Your task to perform on an android device: open app "Chime – Mobile Banking" (install if not already installed) and enter user name: "bullfrog@inbox.com" and password: "breaker" Image 0: 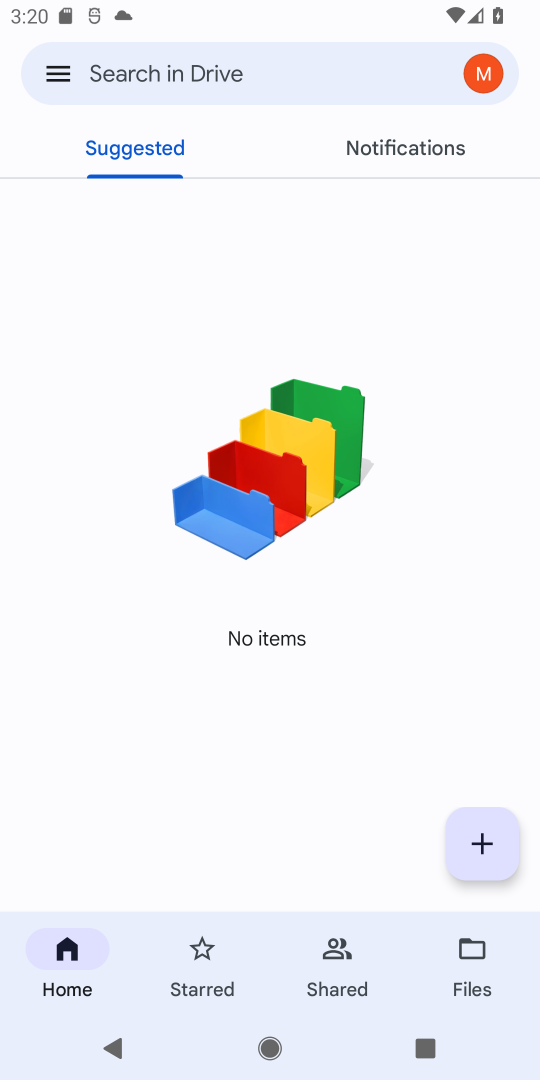
Step 0: press home button
Your task to perform on an android device: open app "Chime – Mobile Banking" (install if not already installed) and enter user name: "bullfrog@inbox.com" and password: "breaker" Image 1: 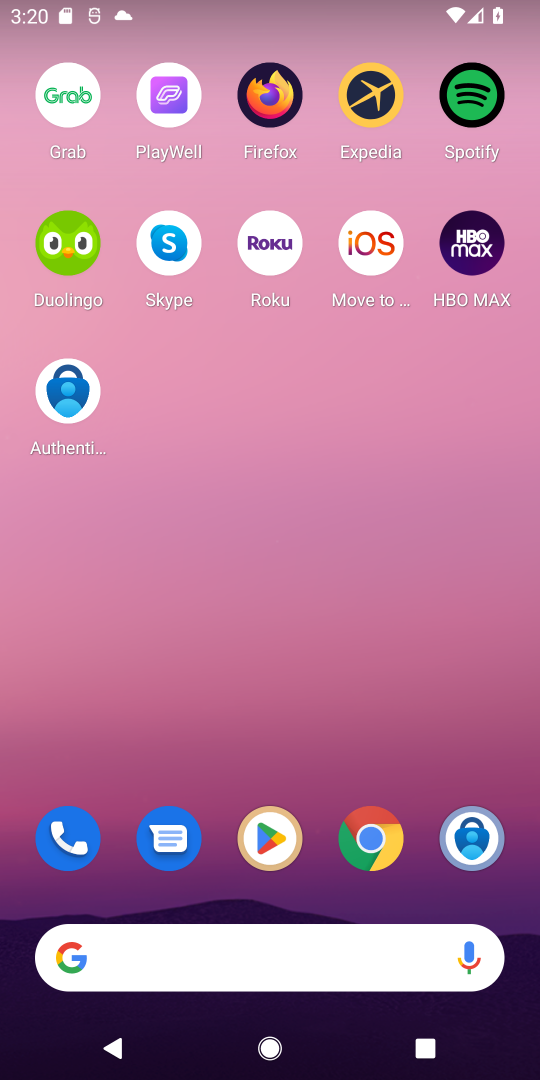
Step 1: click (284, 823)
Your task to perform on an android device: open app "Chime – Mobile Banking" (install if not already installed) and enter user name: "bullfrog@inbox.com" and password: "breaker" Image 2: 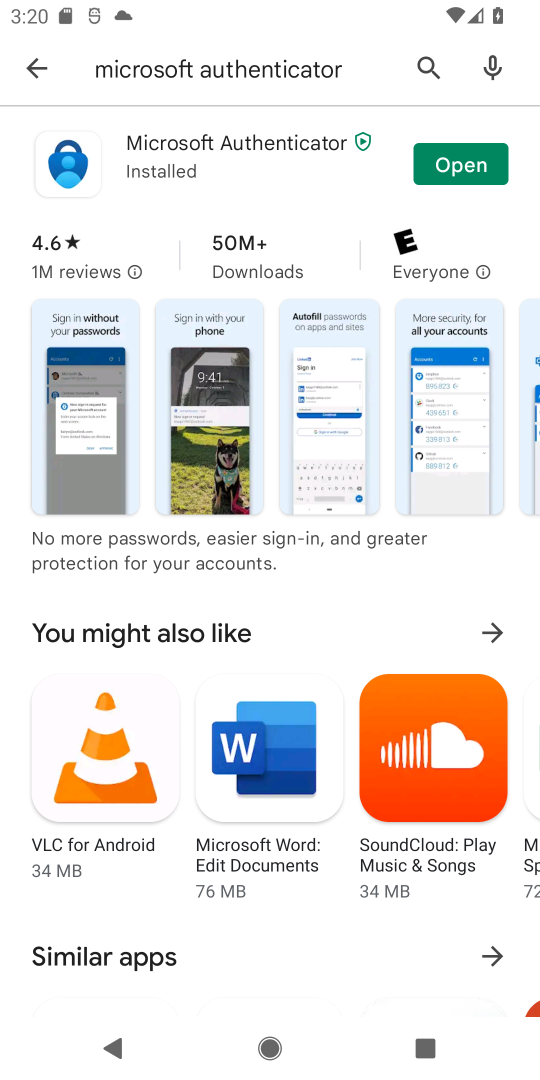
Step 2: click (28, 53)
Your task to perform on an android device: open app "Chime – Mobile Banking" (install if not already installed) and enter user name: "bullfrog@inbox.com" and password: "breaker" Image 3: 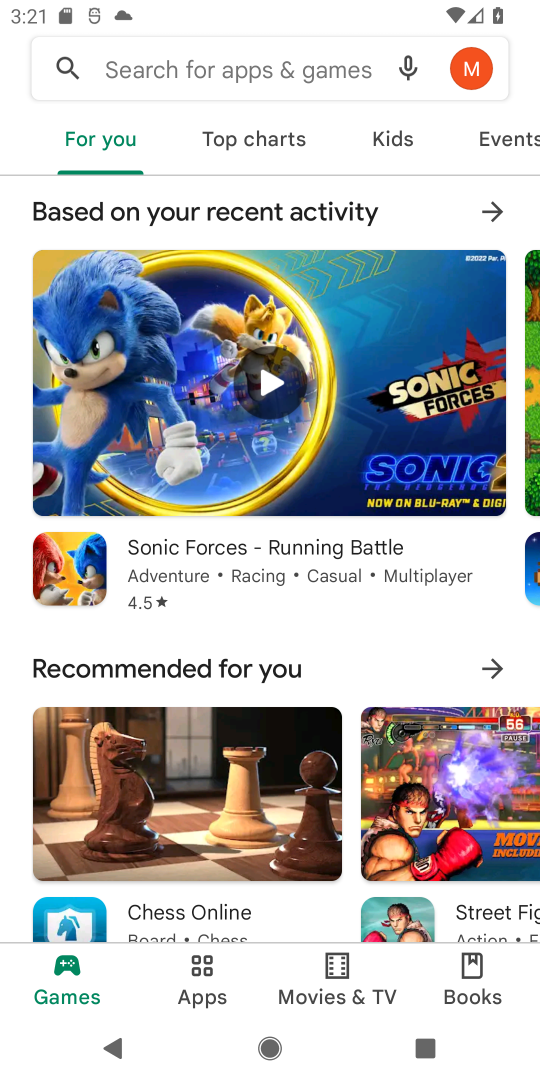
Step 3: click (116, 65)
Your task to perform on an android device: open app "Chime – Mobile Banking" (install if not already installed) and enter user name: "bullfrog@inbox.com" and password: "breaker" Image 4: 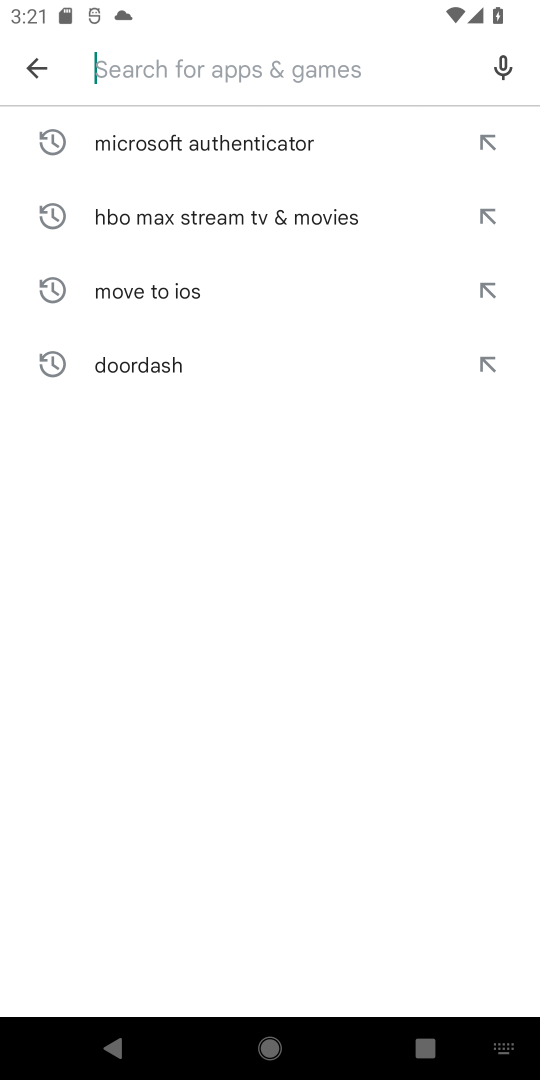
Step 4: type "Chime"
Your task to perform on an android device: open app "Chime – Mobile Banking" (install if not already installed) and enter user name: "bullfrog@inbox.com" and password: "breaker" Image 5: 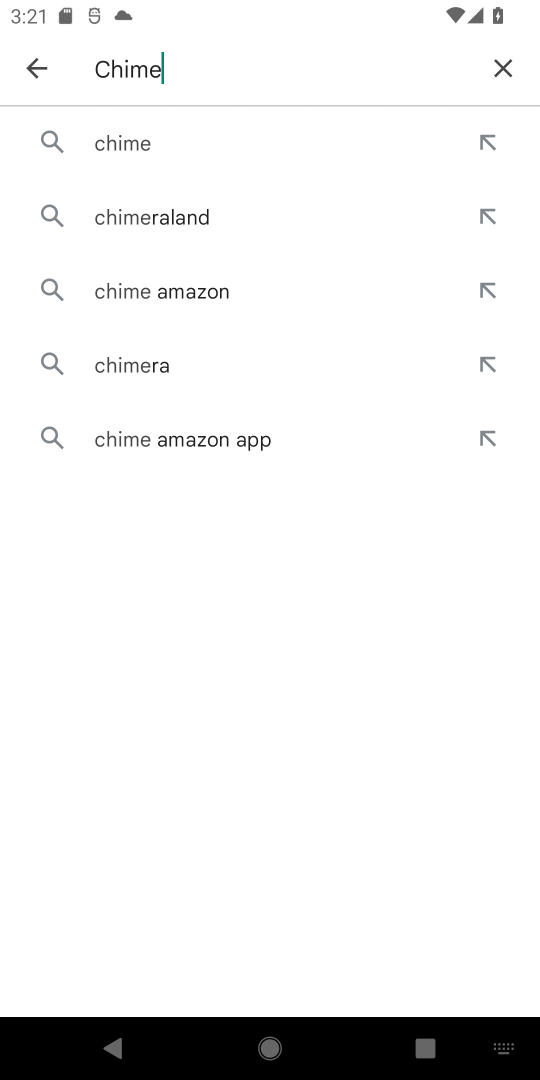
Step 5: click (160, 166)
Your task to perform on an android device: open app "Chime – Mobile Banking" (install if not already installed) and enter user name: "bullfrog@inbox.com" and password: "breaker" Image 6: 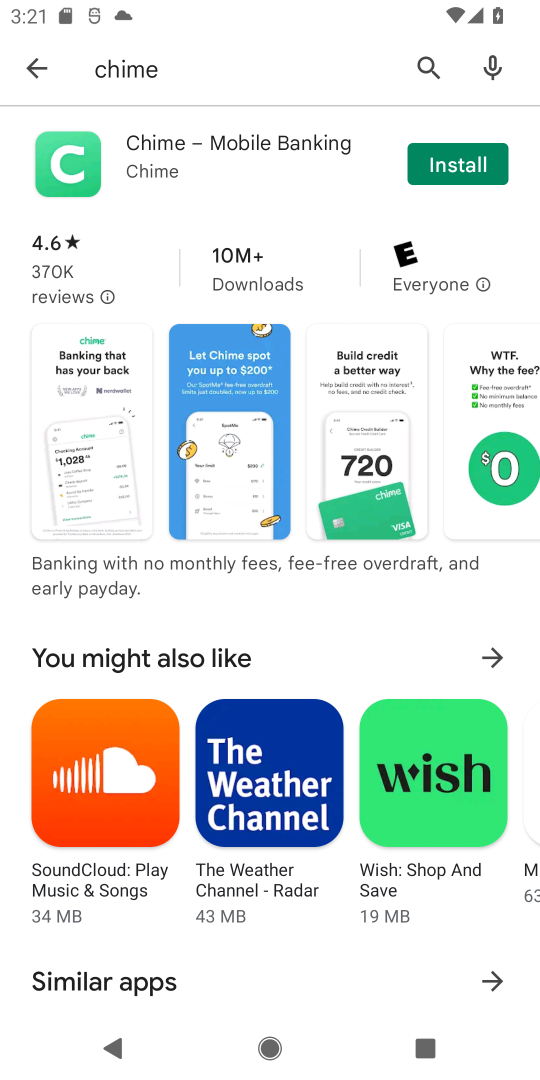
Step 6: click (439, 165)
Your task to perform on an android device: open app "Chime – Mobile Banking" (install if not already installed) and enter user name: "bullfrog@inbox.com" and password: "breaker" Image 7: 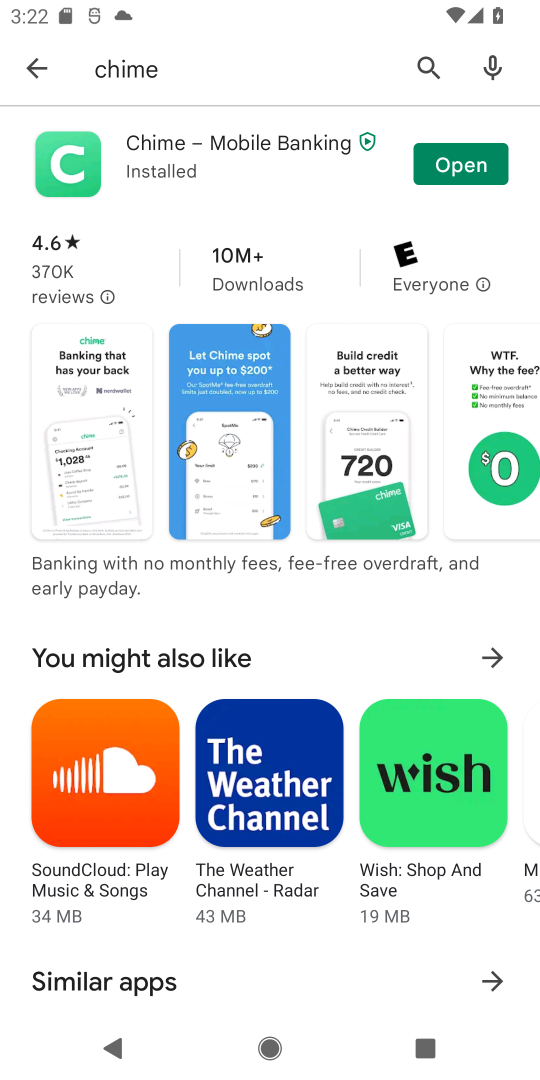
Step 7: click (422, 168)
Your task to perform on an android device: open app "Chime – Mobile Banking" (install if not already installed) and enter user name: "bullfrog@inbox.com" and password: "breaker" Image 8: 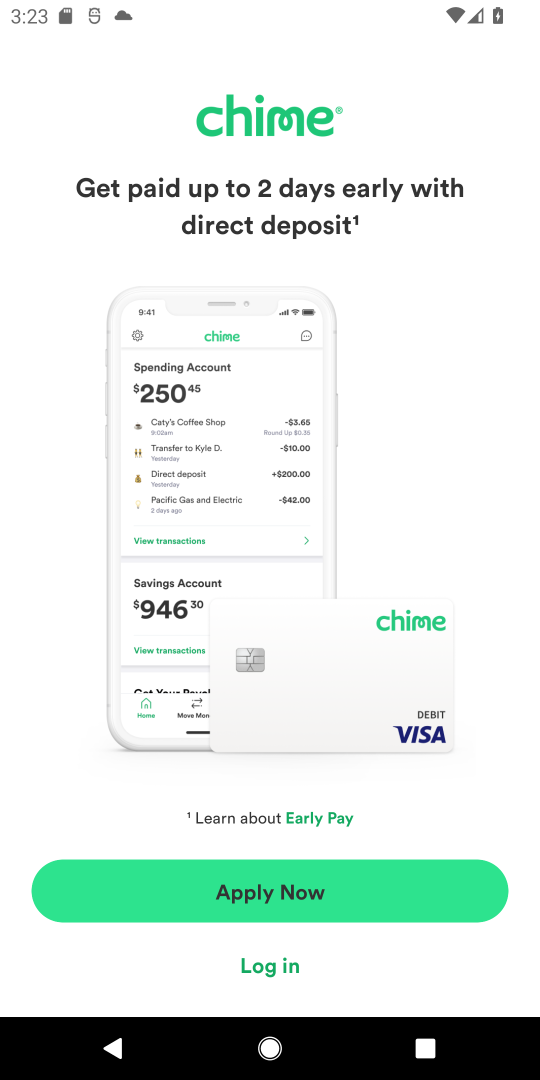
Step 8: click (279, 973)
Your task to perform on an android device: open app "Chime – Mobile Banking" (install if not already installed) and enter user name: "bullfrog@inbox.com" and password: "breaker" Image 9: 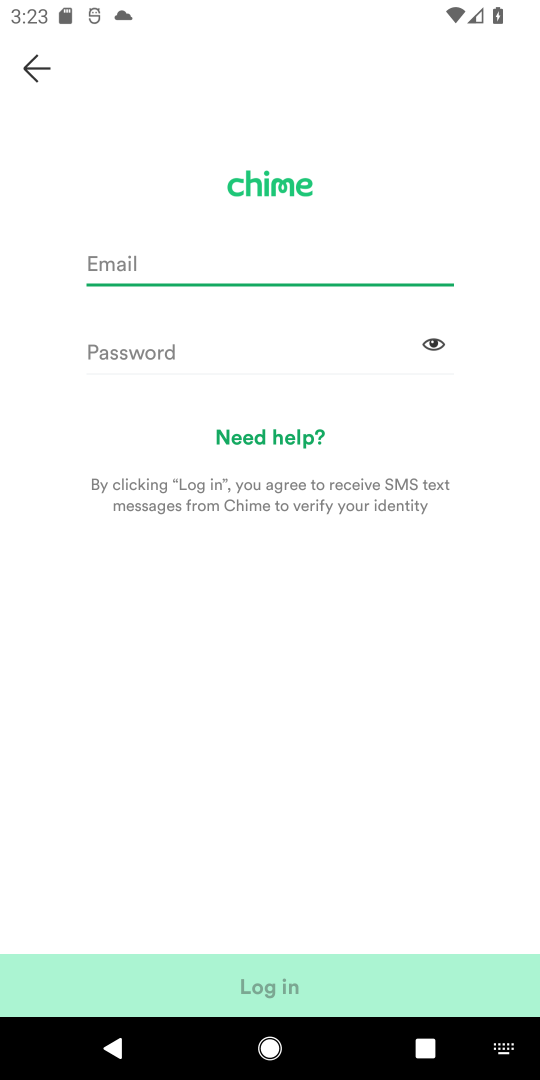
Step 9: type "bullfrog@inbox.com"
Your task to perform on an android device: open app "Chime – Mobile Banking" (install if not already installed) and enter user name: "bullfrog@inbox.com" and password: "breaker" Image 10: 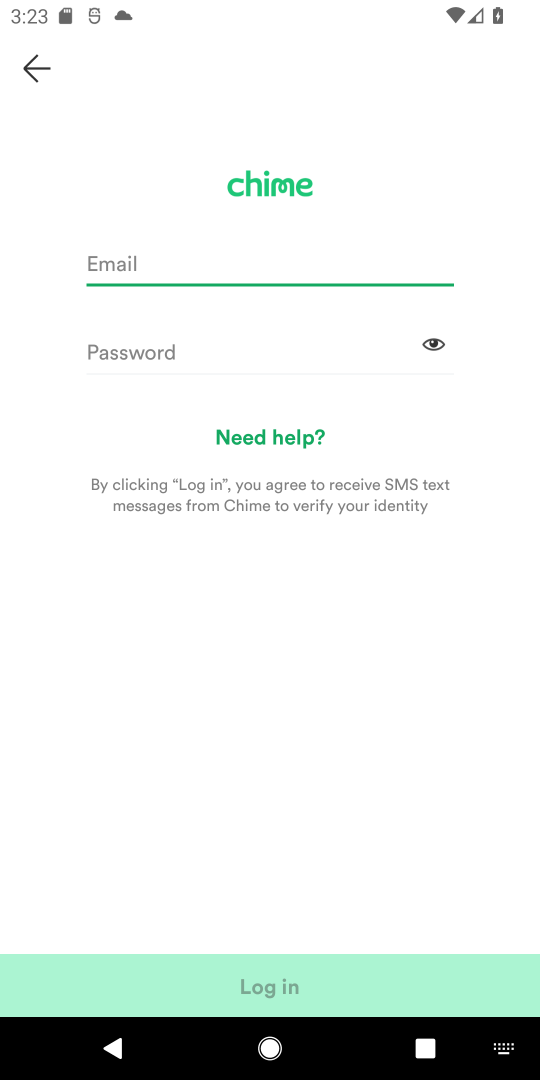
Step 10: click (312, 346)
Your task to perform on an android device: open app "Chime – Mobile Banking" (install if not already installed) and enter user name: "bullfrog@inbox.com" and password: "breaker" Image 11: 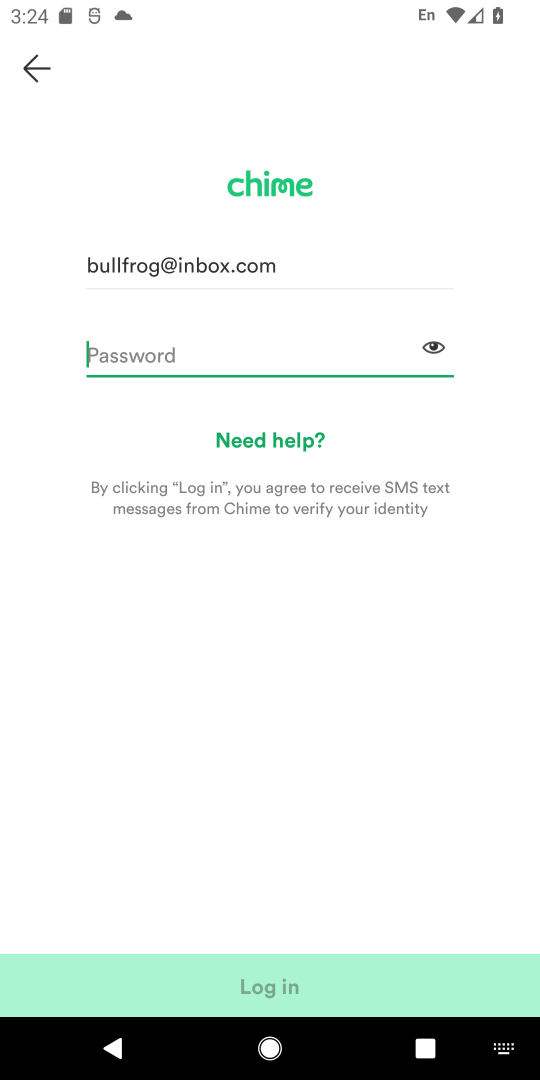
Step 11: type "breaker"
Your task to perform on an android device: open app "Chime – Mobile Banking" (install if not already installed) and enter user name: "bullfrog@inbox.com" and password: "breaker" Image 12: 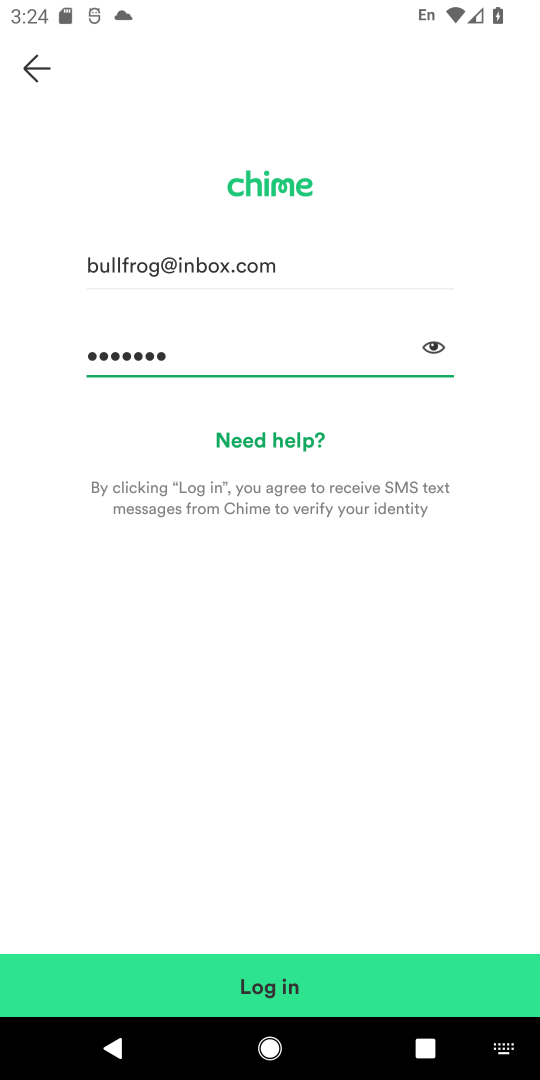
Step 12: task complete